Your task to perform on an android device: Search for asus rog on costco.com, select the first entry, add it to the cart, then select checkout. Image 0: 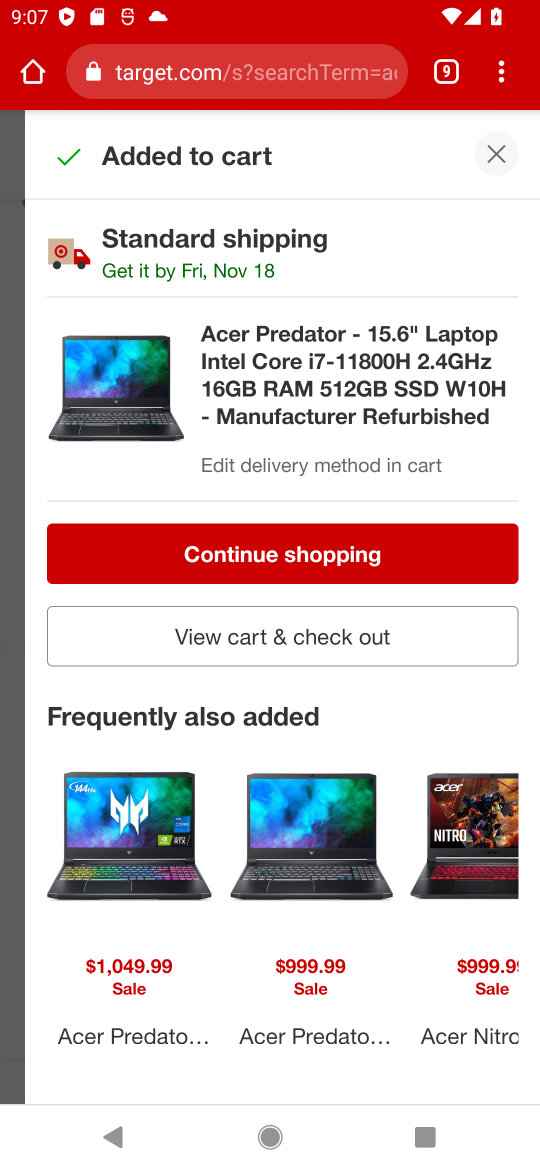
Step 0: press home button
Your task to perform on an android device: Search for asus rog on costco.com, select the first entry, add it to the cart, then select checkout. Image 1: 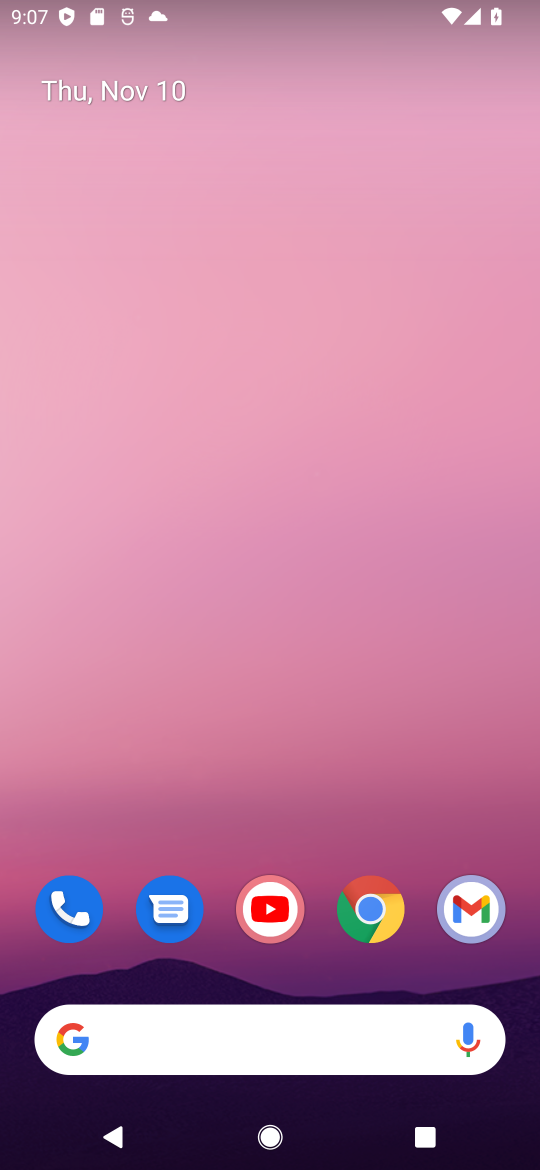
Step 1: drag from (237, 1090) to (271, 355)
Your task to perform on an android device: Search for asus rog on costco.com, select the first entry, add it to the cart, then select checkout. Image 2: 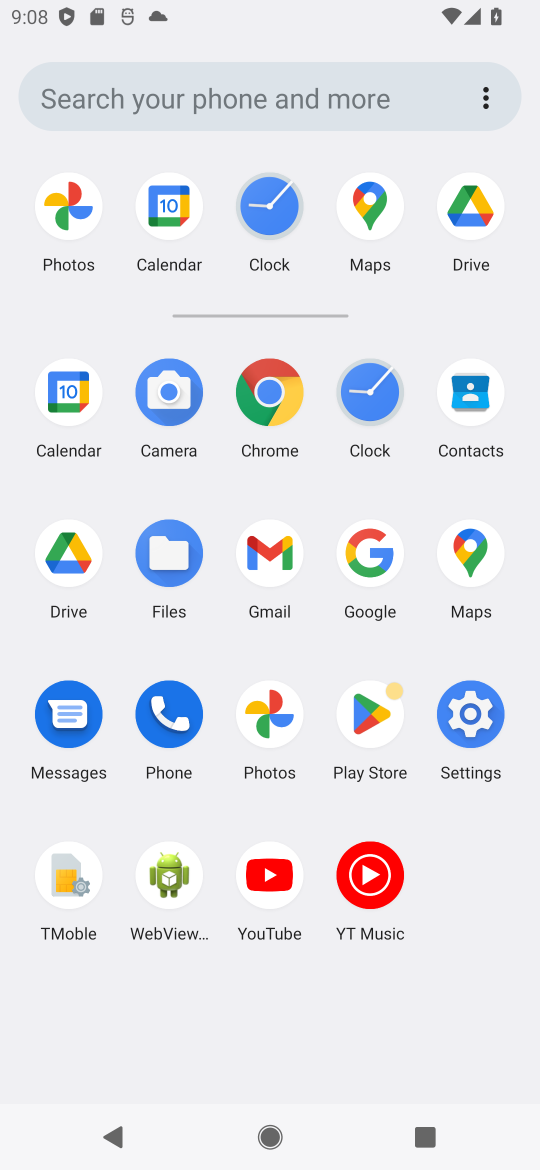
Step 2: click (351, 548)
Your task to perform on an android device: Search for asus rog on costco.com, select the first entry, add it to the cart, then select checkout. Image 3: 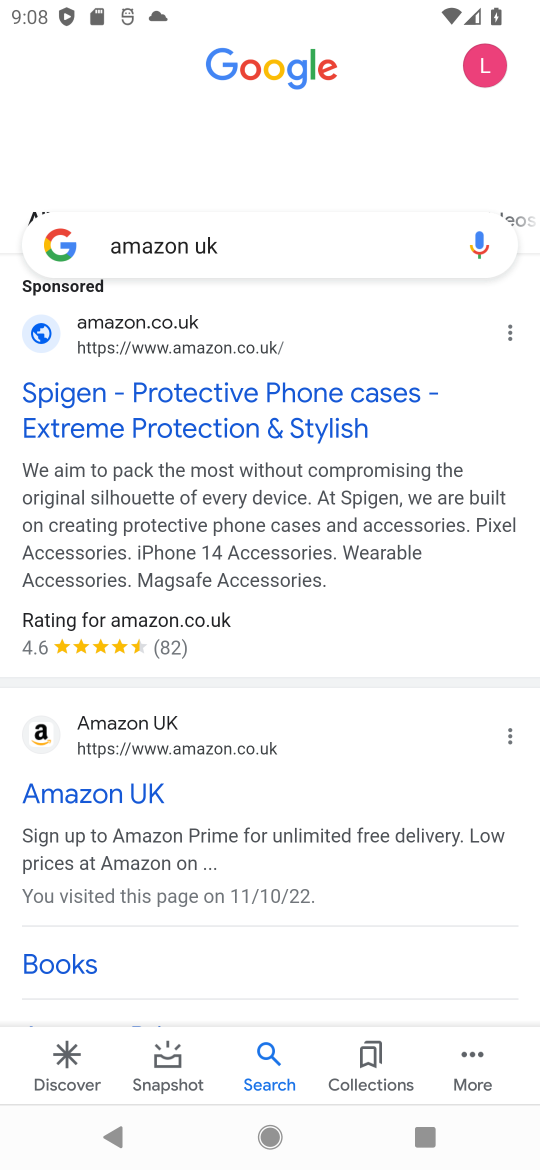
Step 3: click (211, 231)
Your task to perform on an android device: Search for asus rog on costco.com, select the first entry, add it to the cart, then select checkout. Image 4: 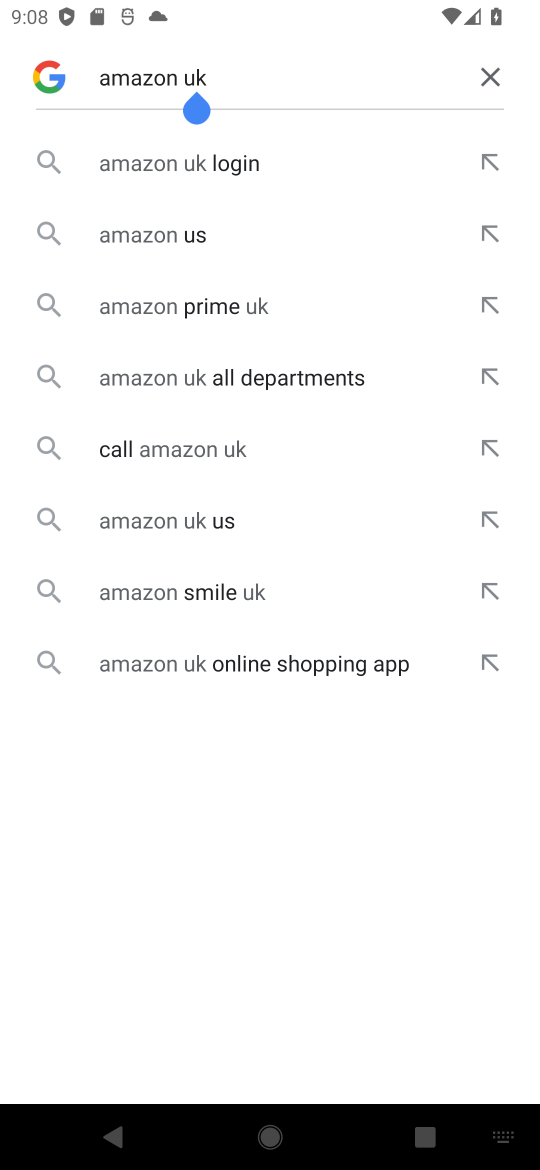
Step 4: click (481, 72)
Your task to perform on an android device: Search for asus rog on costco.com, select the first entry, add it to the cart, then select checkout. Image 5: 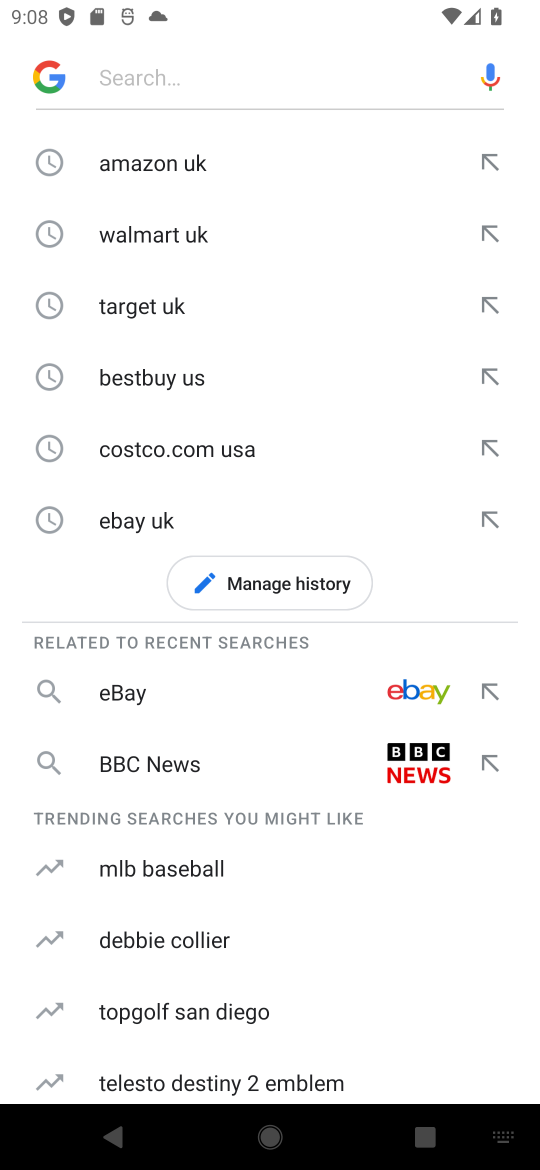
Step 5: click (171, 450)
Your task to perform on an android device: Search for asus rog on costco.com, select the first entry, add it to the cart, then select checkout. Image 6: 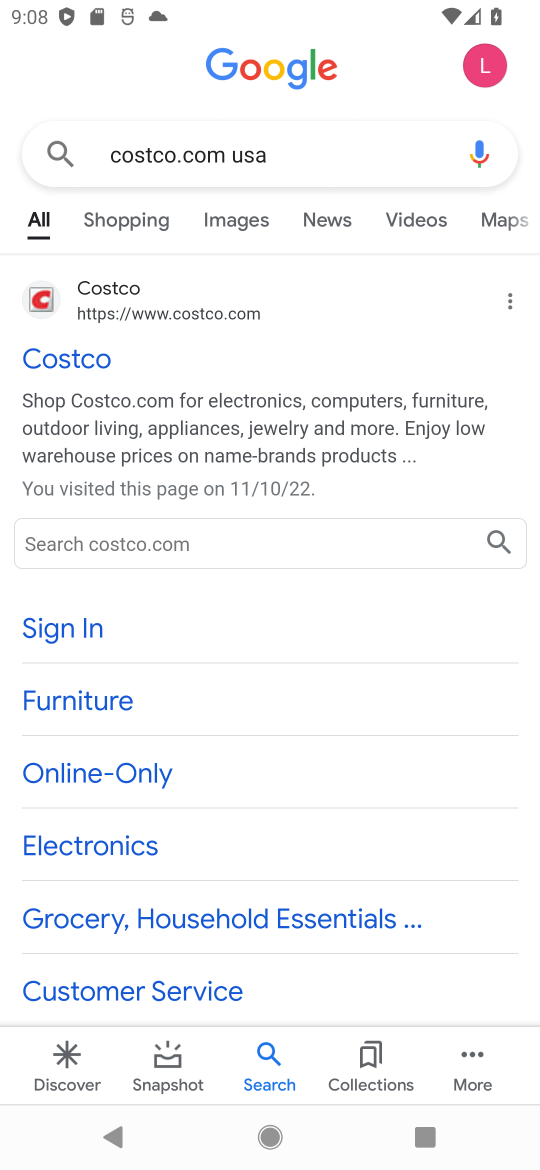
Step 6: click (36, 286)
Your task to perform on an android device: Search for asus rog on costco.com, select the first entry, add it to the cart, then select checkout. Image 7: 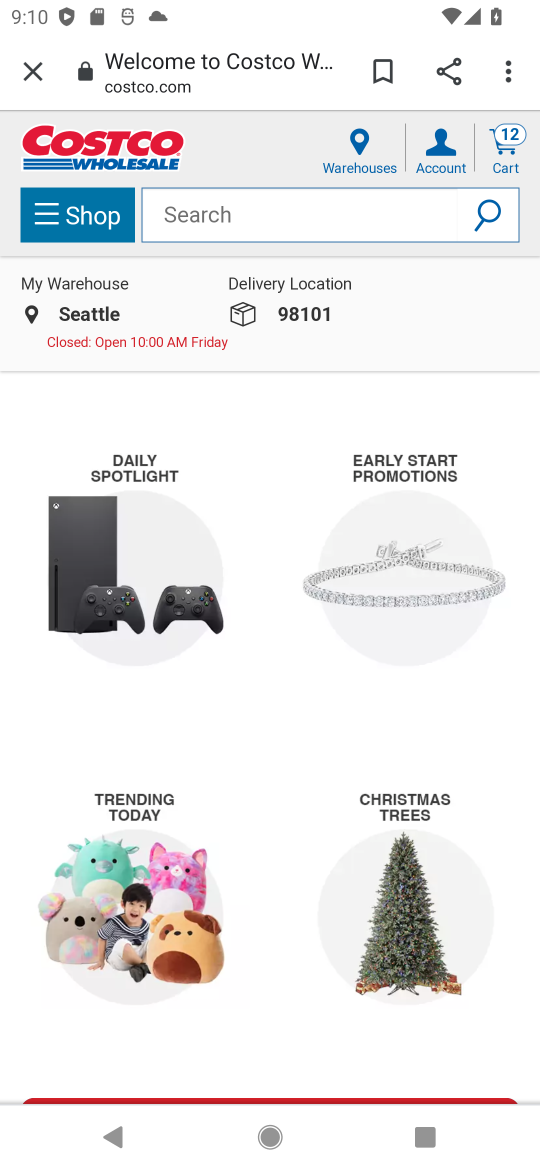
Step 7: click (261, 202)
Your task to perform on an android device: Search for asus rog on costco.com, select the first entry, add it to the cart, then select checkout. Image 8: 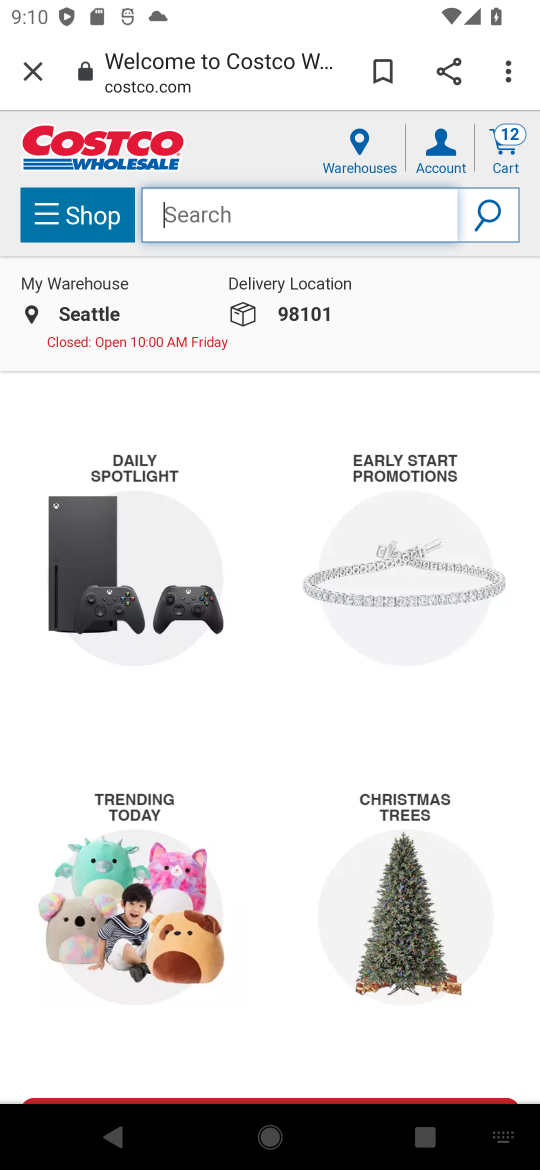
Step 8: type "asus rog "
Your task to perform on an android device: Search for asus rog on costco.com, select the first entry, add it to the cart, then select checkout. Image 9: 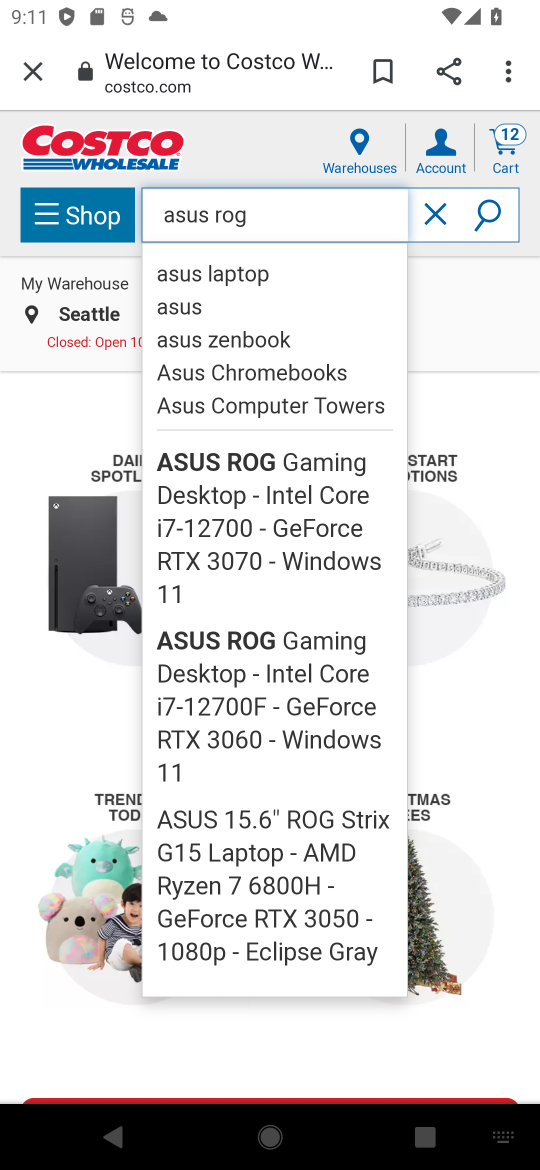
Step 9: click (212, 299)
Your task to perform on an android device: Search for asus rog on costco.com, select the first entry, add it to the cart, then select checkout. Image 10: 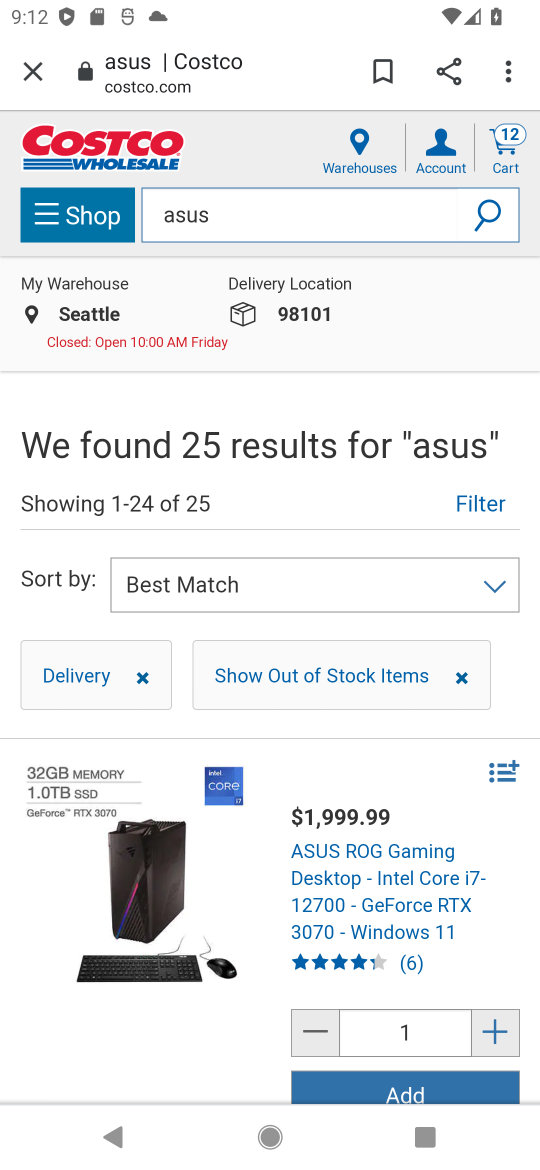
Step 10: drag from (339, 770) to (333, 617)
Your task to perform on an android device: Search for asus rog on costco.com, select the first entry, add it to the cart, then select checkout. Image 11: 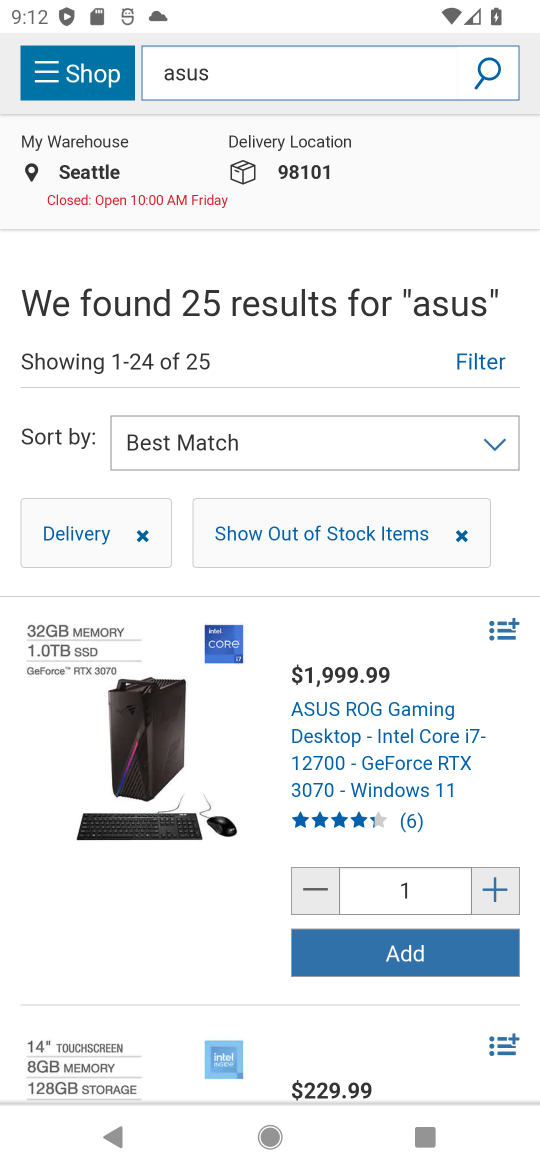
Step 11: click (401, 953)
Your task to perform on an android device: Search for asus rog on costco.com, select the first entry, add it to the cart, then select checkout. Image 12: 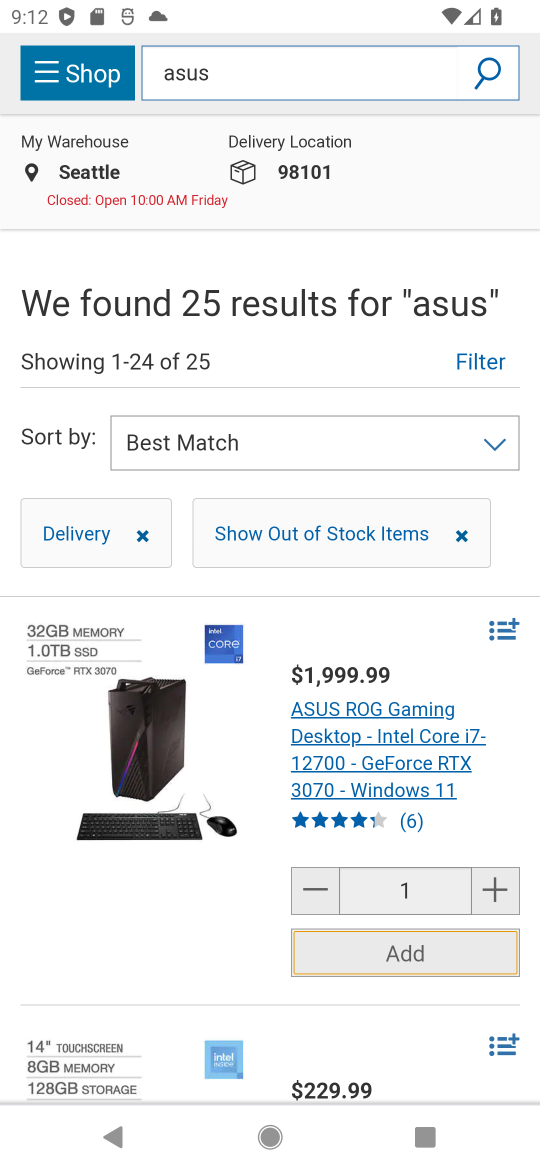
Step 12: task complete